Your task to perform on an android device: remove spam from my inbox in the gmail app Image 0: 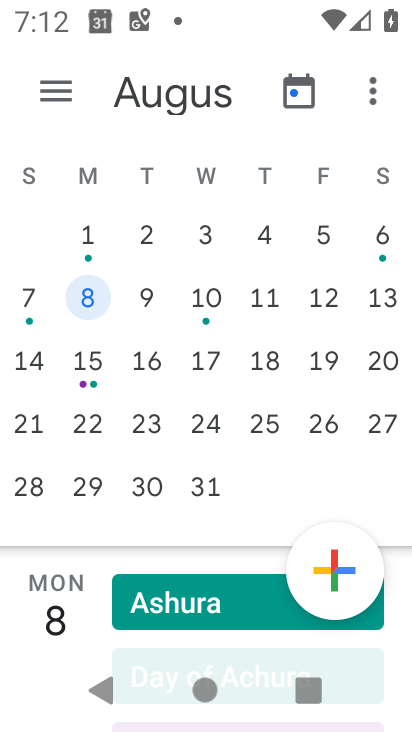
Step 0: press home button
Your task to perform on an android device: remove spam from my inbox in the gmail app Image 1: 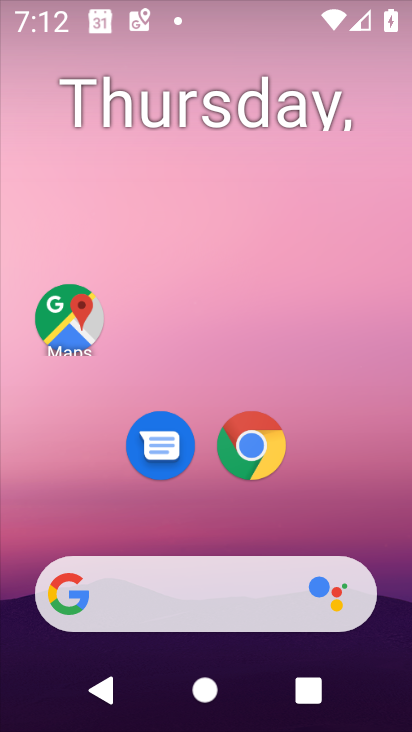
Step 1: drag from (404, 685) to (412, 486)
Your task to perform on an android device: remove spam from my inbox in the gmail app Image 2: 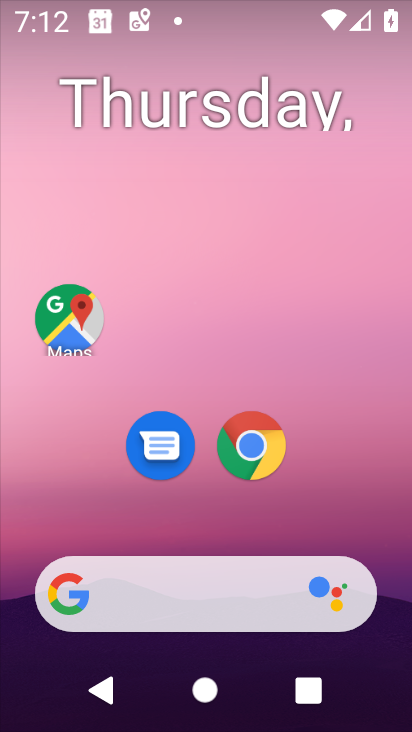
Step 2: drag from (398, 618) to (267, 93)
Your task to perform on an android device: remove spam from my inbox in the gmail app Image 3: 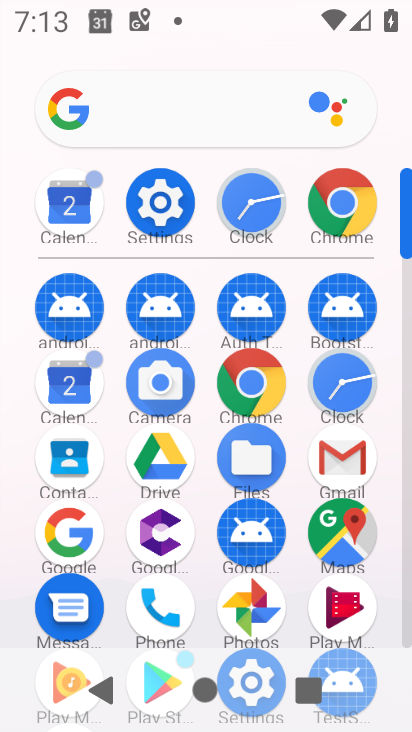
Step 3: click (339, 462)
Your task to perform on an android device: remove spam from my inbox in the gmail app Image 4: 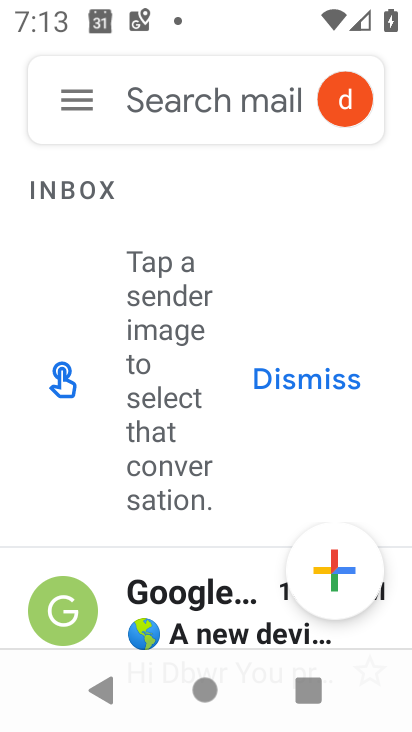
Step 4: click (67, 108)
Your task to perform on an android device: remove spam from my inbox in the gmail app Image 5: 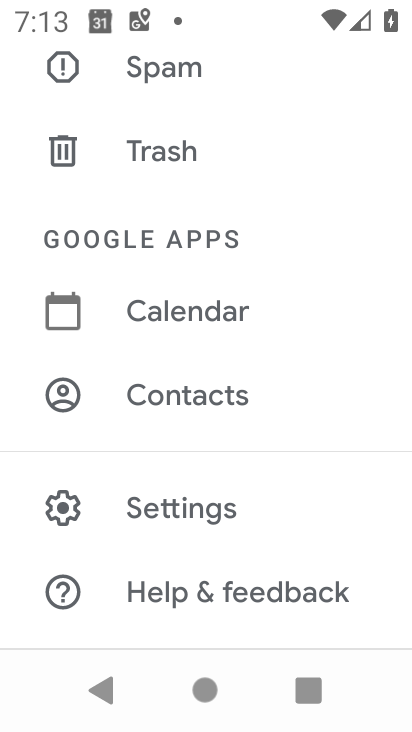
Step 5: task complete